Your task to perform on an android device: Open Reddit.com Image 0: 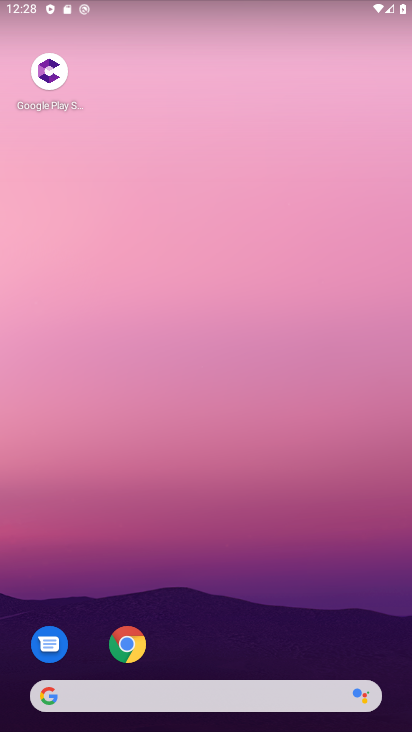
Step 0: click (195, 699)
Your task to perform on an android device: Open Reddit.com Image 1: 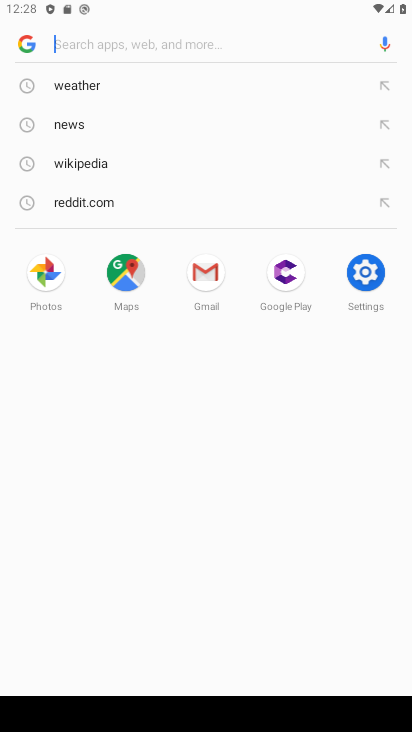
Step 1: type "Reddit.com"
Your task to perform on an android device: Open Reddit.com Image 2: 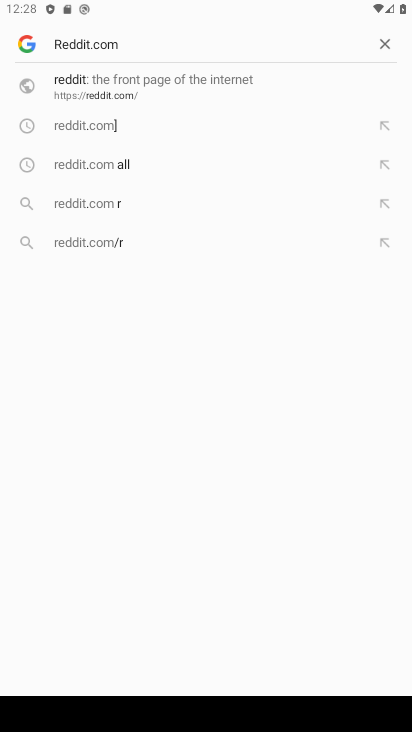
Step 2: click (172, 97)
Your task to perform on an android device: Open Reddit.com Image 3: 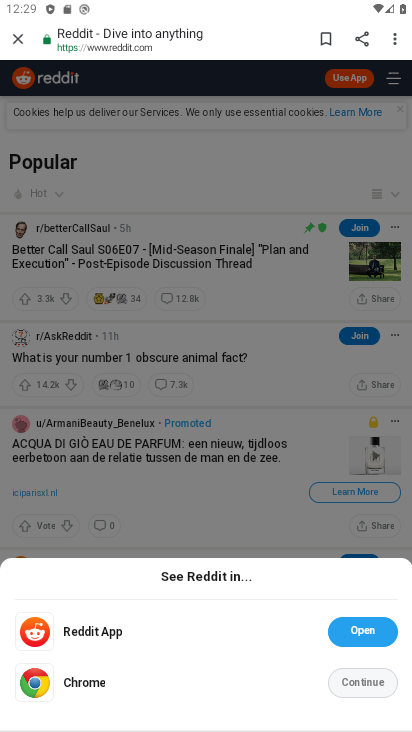
Step 3: click (374, 686)
Your task to perform on an android device: Open Reddit.com Image 4: 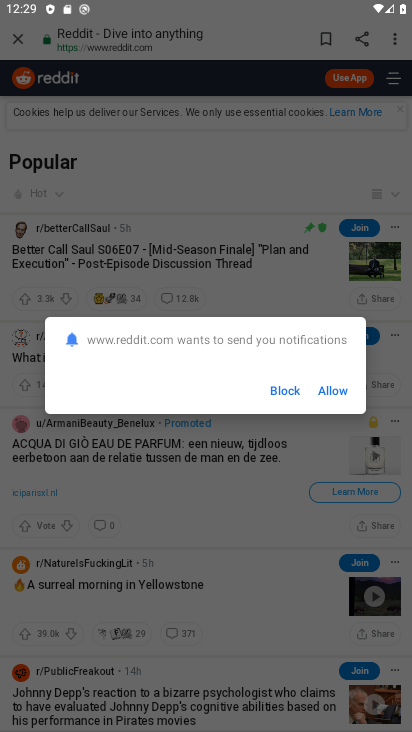
Step 4: click (352, 392)
Your task to perform on an android device: Open Reddit.com Image 5: 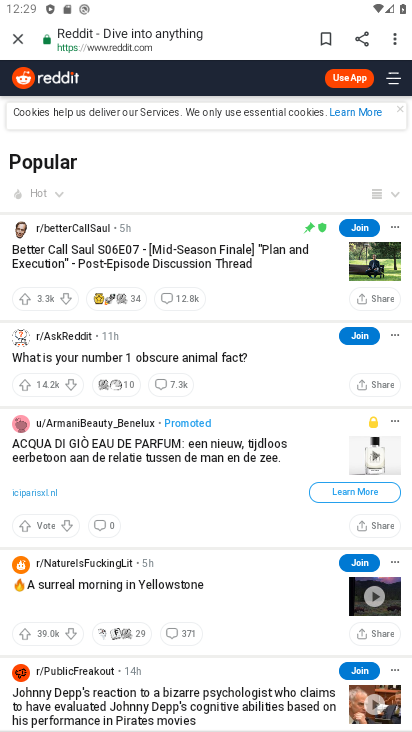
Step 5: task complete